Your task to perform on an android device: Open network settings Image 0: 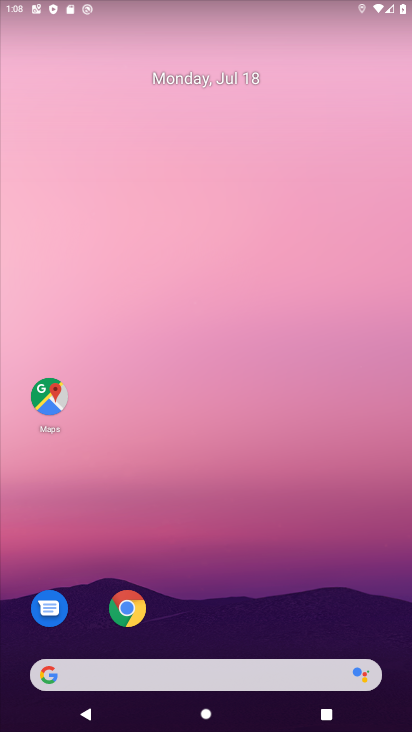
Step 0: drag from (279, 610) to (248, 145)
Your task to perform on an android device: Open network settings Image 1: 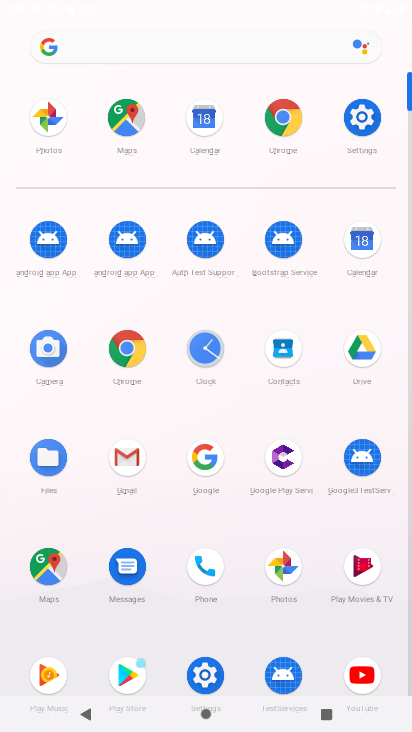
Step 1: click (362, 120)
Your task to perform on an android device: Open network settings Image 2: 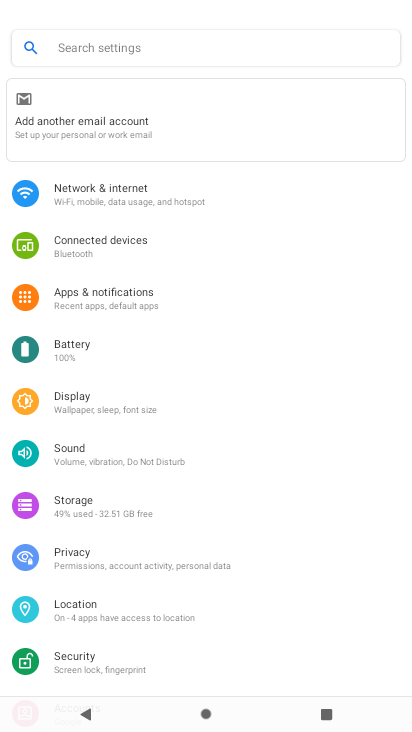
Step 2: click (251, 188)
Your task to perform on an android device: Open network settings Image 3: 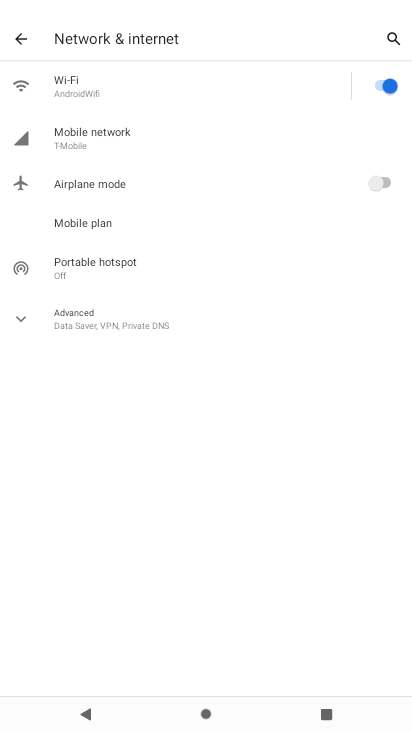
Step 3: task complete